Your task to perform on an android device: What is the news today? Image 0: 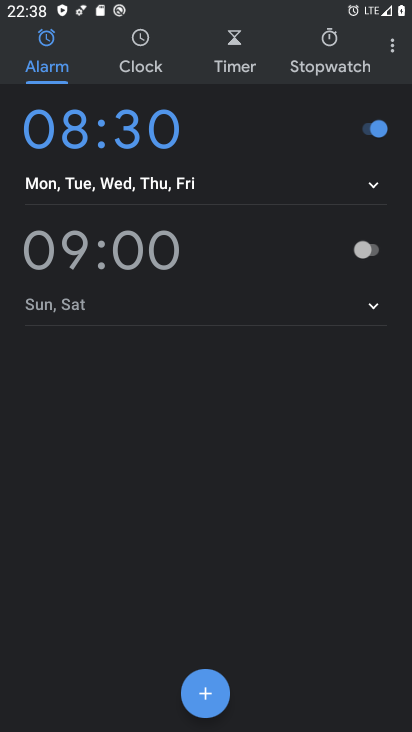
Step 0: press back button
Your task to perform on an android device: What is the news today? Image 1: 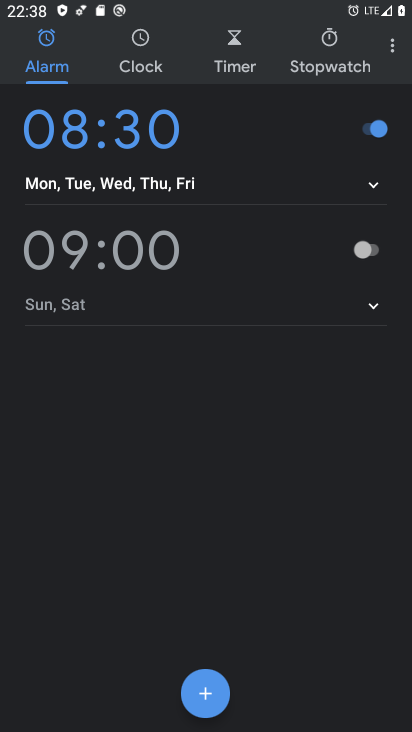
Step 1: press back button
Your task to perform on an android device: What is the news today? Image 2: 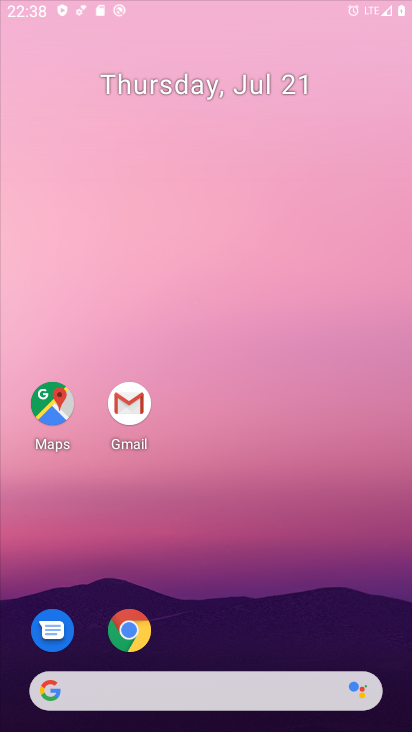
Step 2: press back button
Your task to perform on an android device: What is the news today? Image 3: 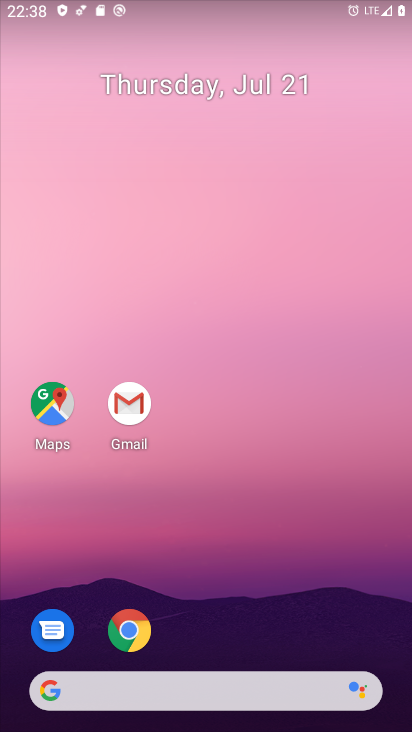
Step 3: drag from (241, 707) to (159, 165)
Your task to perform on an android device: What is the news today? Image 4: 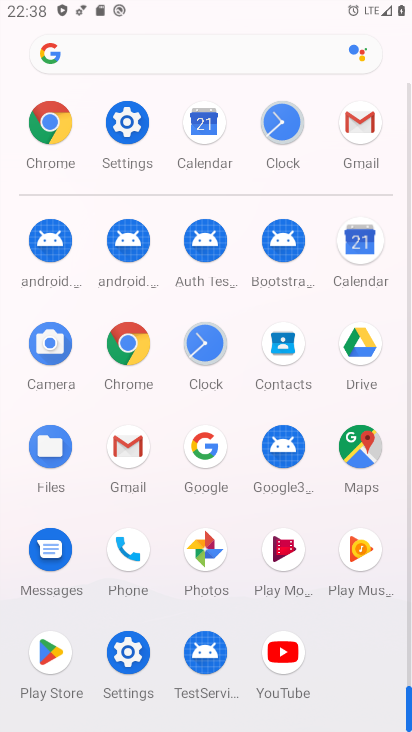
Step 4: click (45, 117)
Your task to perform on an android device: What is the news today? Image 5: 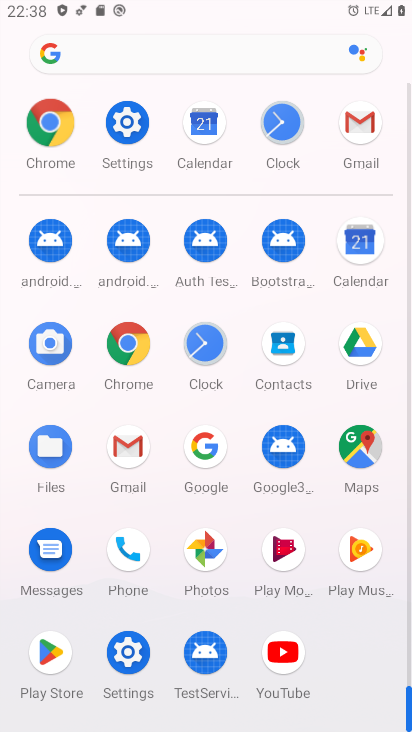
Step 5: click (45, 117)
Your task to perform on an android device: What is the news today? Image 6: 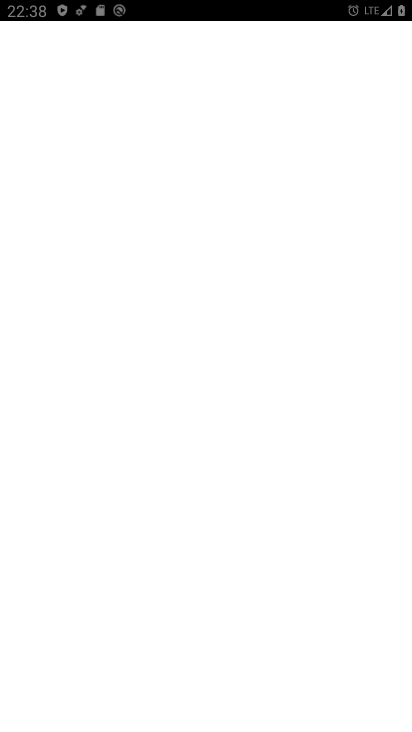
Step 6: click (45, 117)
Your task to perform on an android device: What is the news today? Image 7: 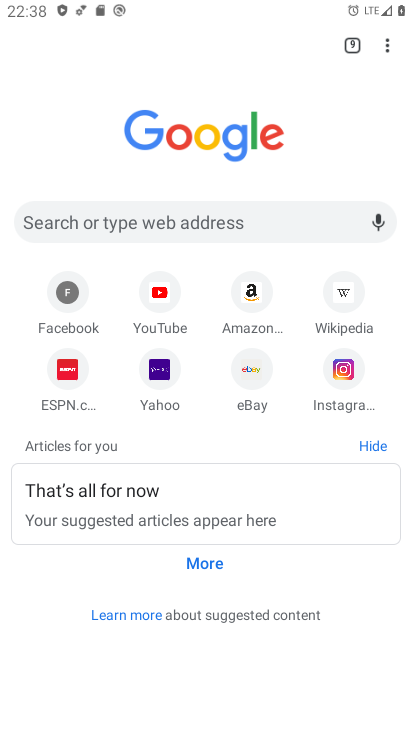
Step 7: click (207, 567)
Your task to perform on an android device: What is the news today? Image 8: 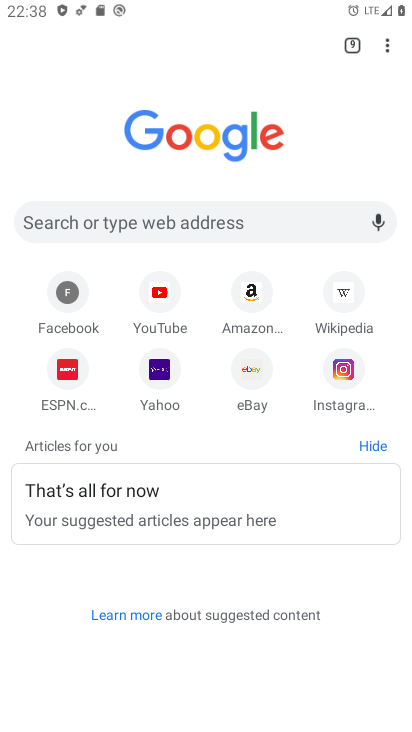
Step 8: click (208, 559)
Your task to perform on an android device: What is the news today? Image 9: 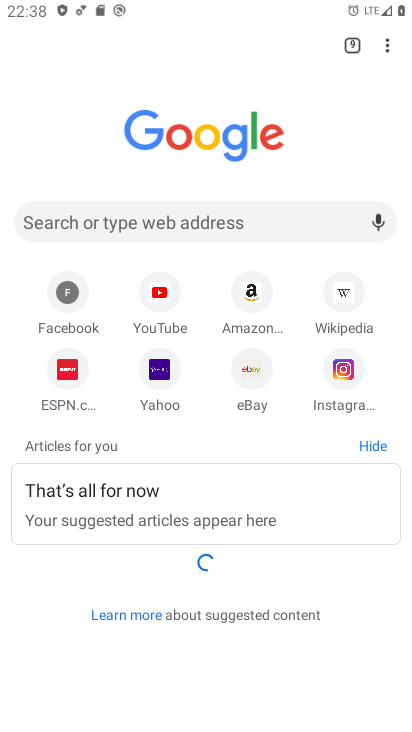
Step 9: click (208, 558)
Your task to perform on an android device: What is the news today? Image 10: 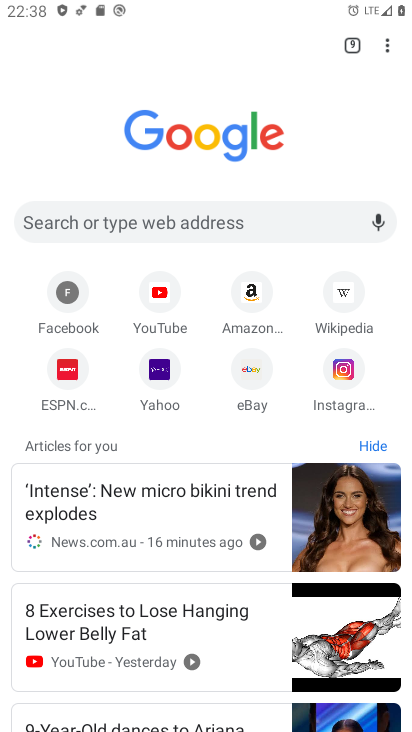
Step 10: task complete